Your task to perform on an android device: Search for pizza restaurants on Maps Image 0: 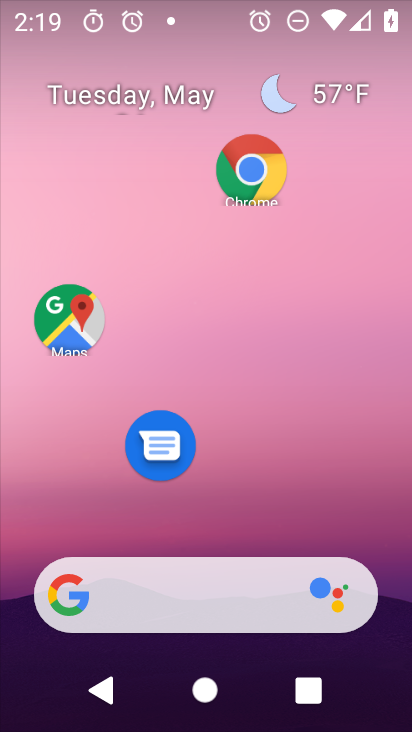
Step 0: drag from (228, 726) to (170, 127)
Your task to perform on an android device: Search for pizza restaurants on Maps Image 1: 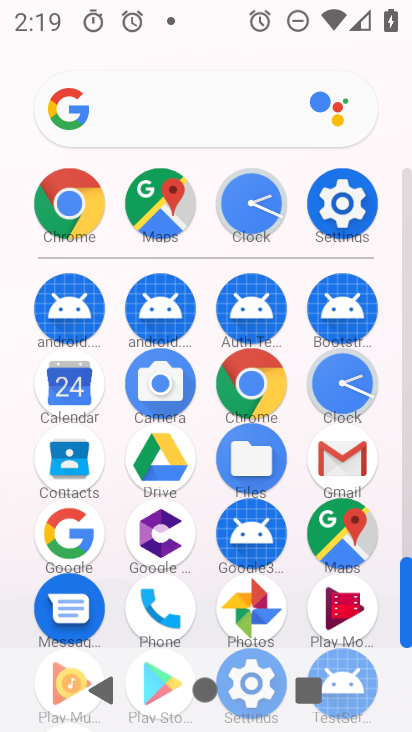
Step 1: click (340, 542)
Your task to perform on an android device: Search for pizza restaurants on Maps Image 2: 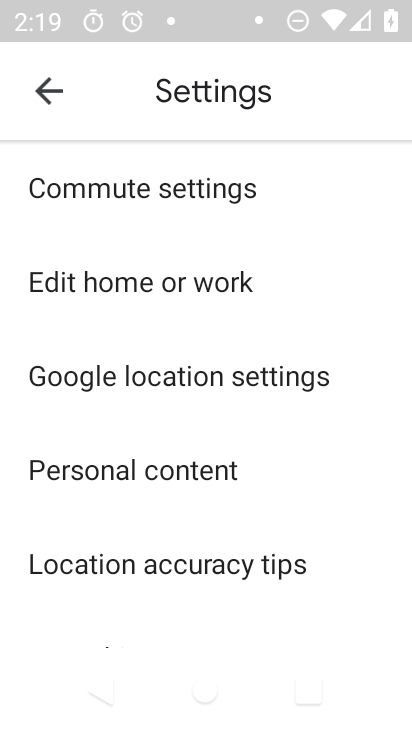
Step 2: task complete